Your task to perform on an android device: open app "HBO Max: Stream TV & Movies" (install if not already installed) Image 0: 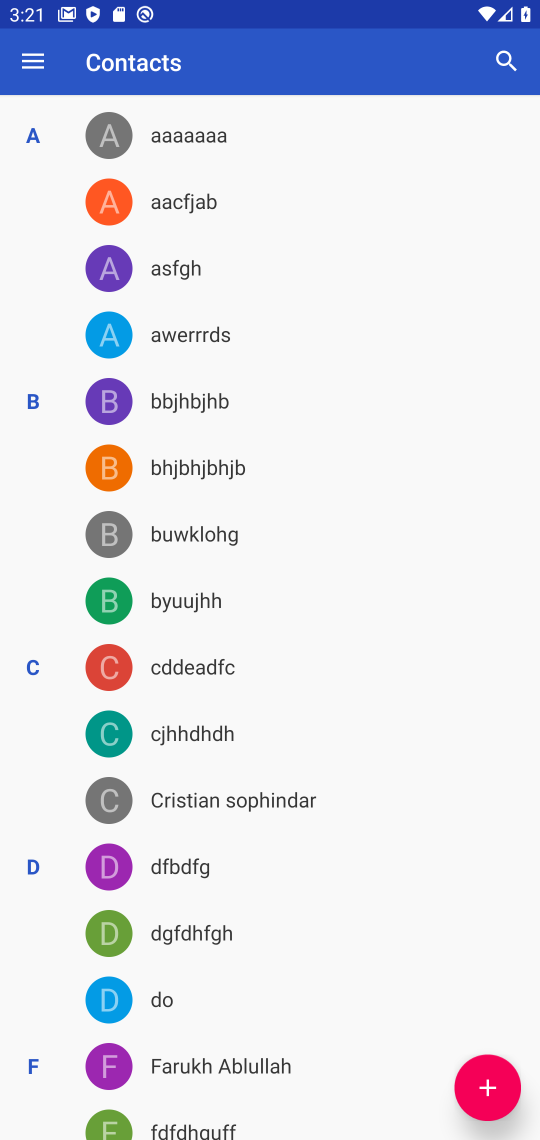
Step 0: press home button
Your task to perform on an android device: open app "HBO Max: Stream TV & Movies" (install if not already installed) Image 1: 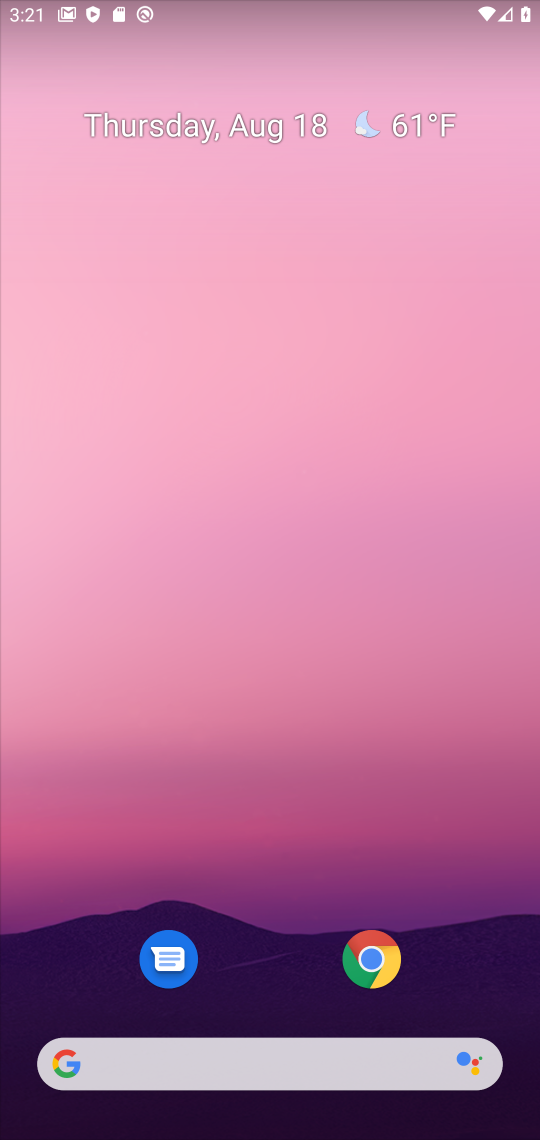
Step 1: drag from (322, 943) to (406, 325)
Your task to perform on an android device: open app "HBO Max: Stream TV & Movies" (install if not already installed) Image 2: 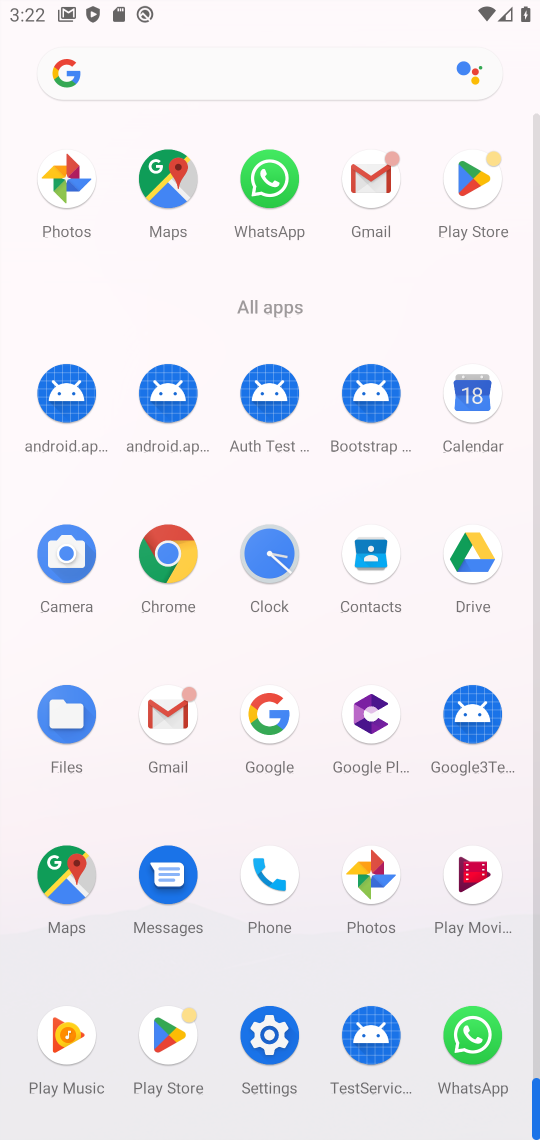
Step 2: click (497, 204)
Your task to perform on an android device: open app "HBO Max: Stream TV & Movies" (install if not already installed) Image 3: 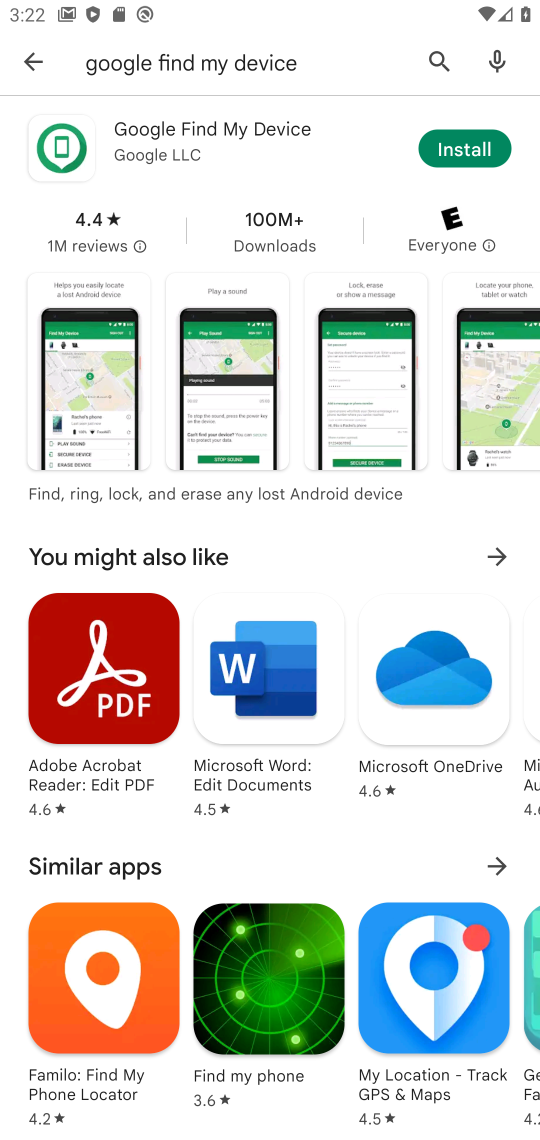
Step 3: click (38, 71)
Your task to perform on an android device: open app "HBO Max: Stream TV & Movies" (install if not already installed) Image 4: 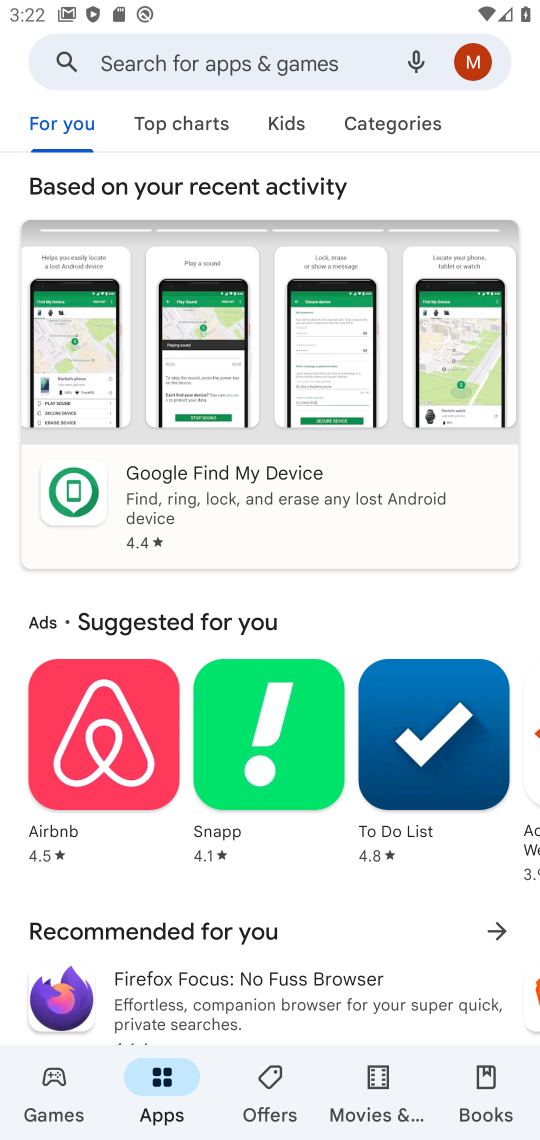
Step 4: click (101, 55)
Your task to perform on an android device: open app "HBO Max: Stream TV & Movies" (install if not already installed) Image 5: 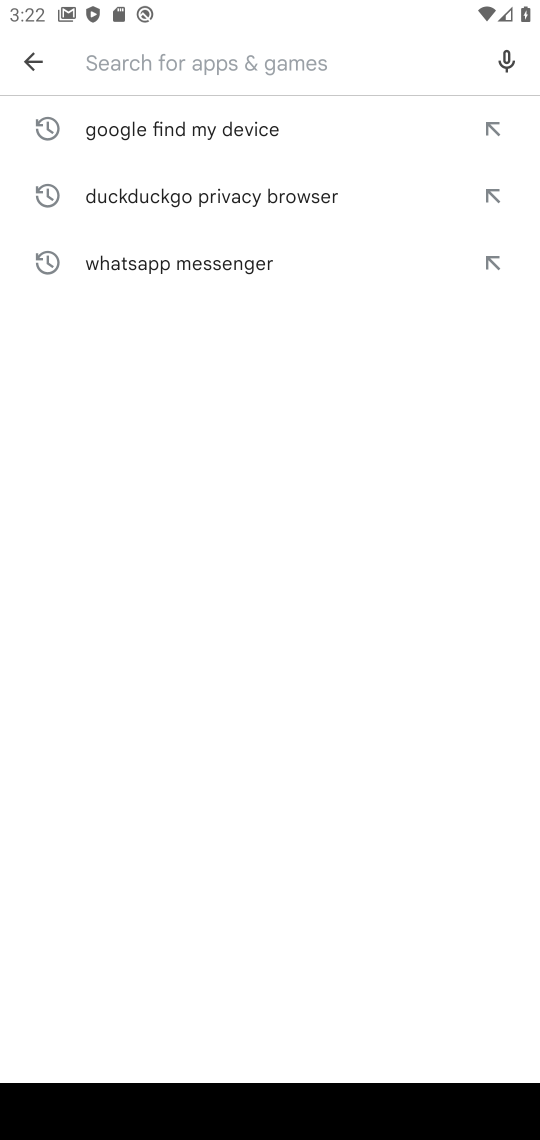
Step 5: type "HBO Max: Stream TV & Movies"
Your task to perform on an android device: open app "HBO Max: Stream TV & Movies" (install if not already installed) Image 6: 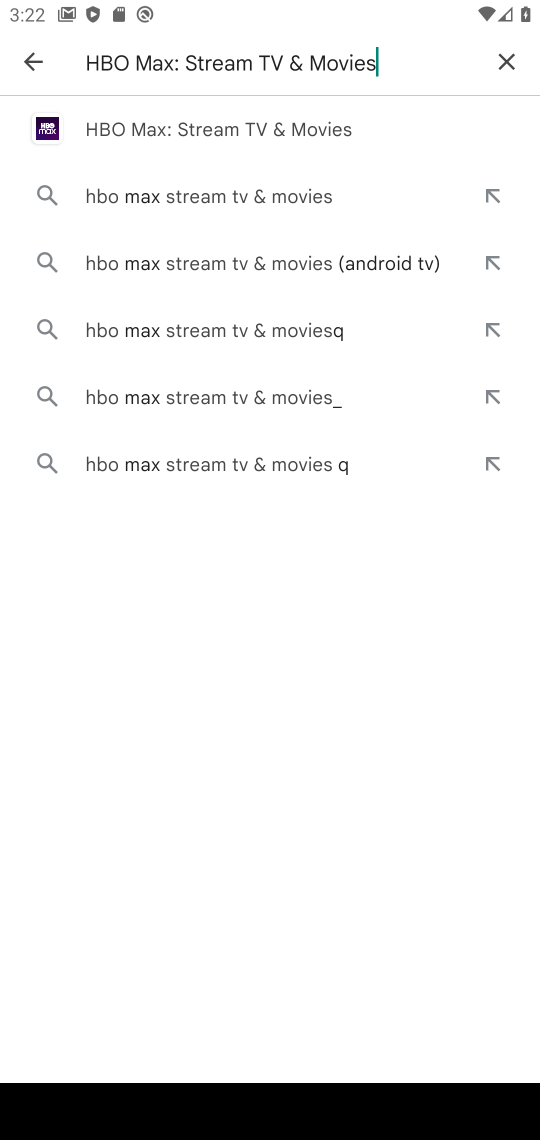
Step 6: click (382, 128)
Your task to perform on an android device: open app "HBO Max: Stream TV & Movies" (install if not already installed) Image 7: 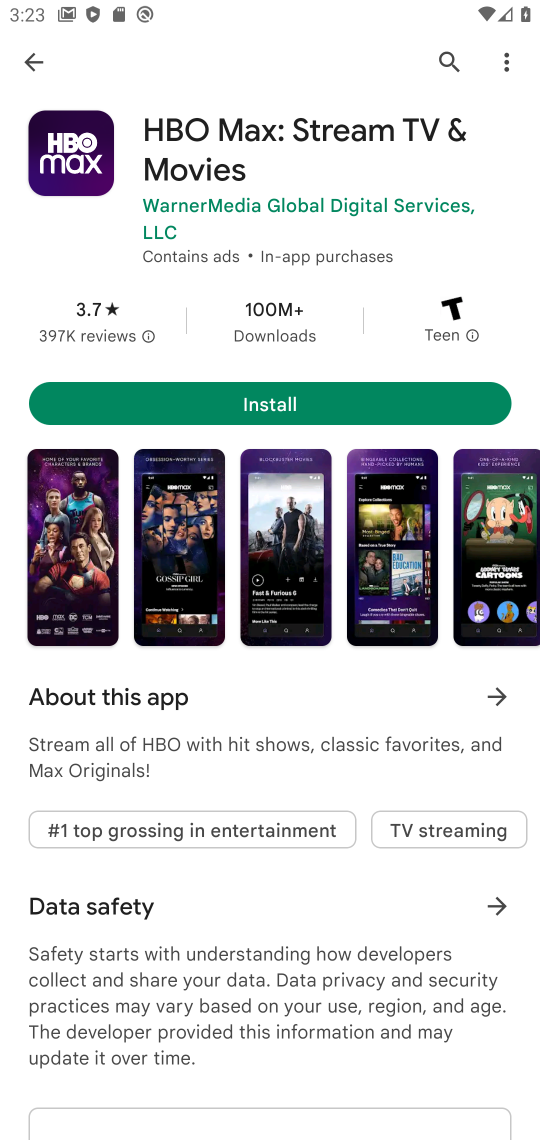
Step 7: click (369, 404)
Your task to perform on an android device: open app "HBO Max: Stream TV & Movies" (install if not already installed) Image 8: 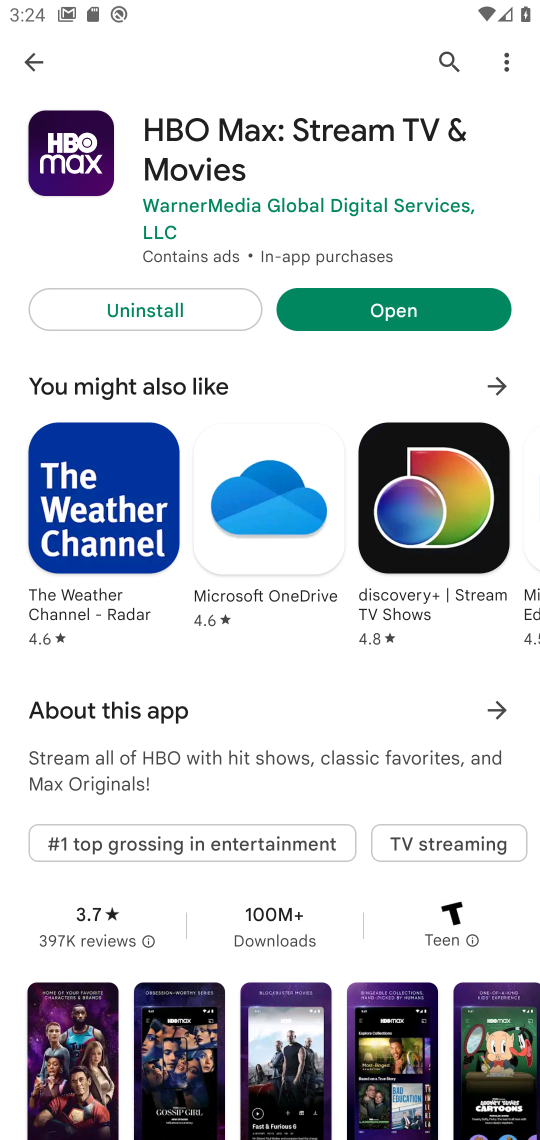
Step 8: click (436, 309)
Your task to perform on an android device: open app "HBO Max: Stream TV & Movies" (install if not already installed) Image 9: 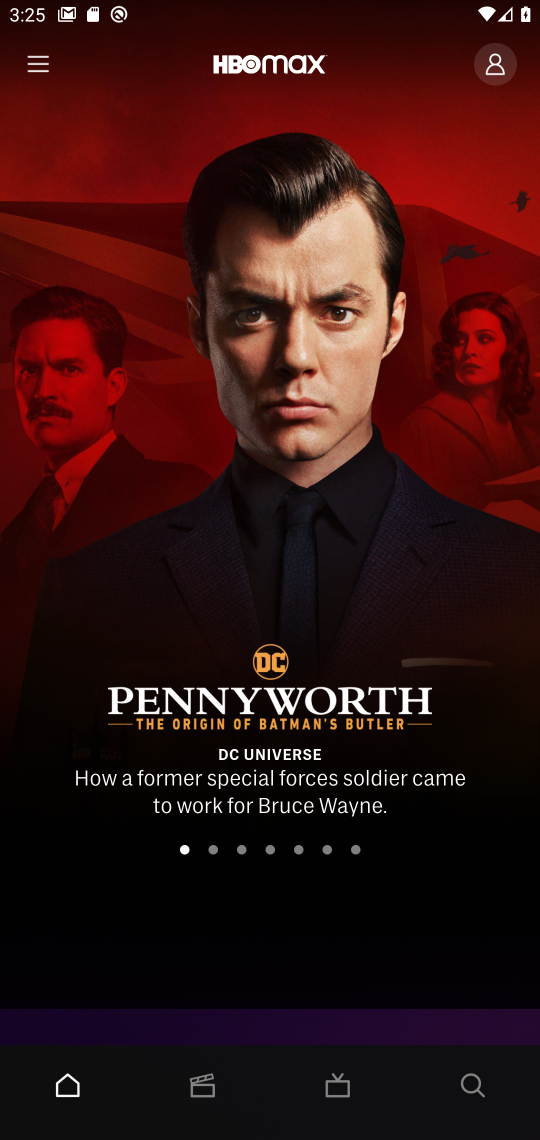
Step 9: task complete